Your task to perform on an android device: find photos in the google photos app Image 0: 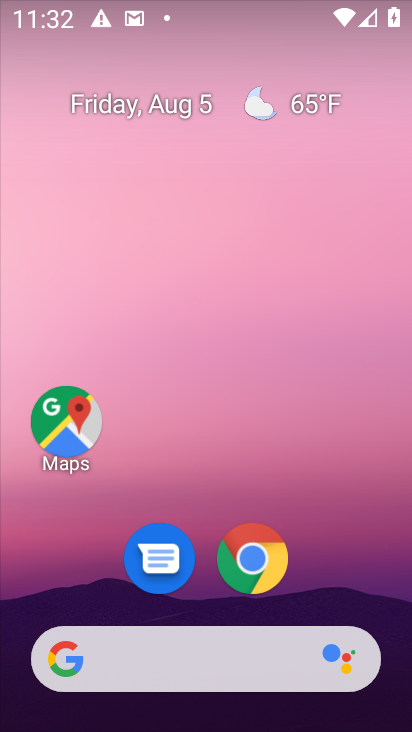
Step 0: press home button
Your task to perform on an android device: find photos in the google photos app Image 1: 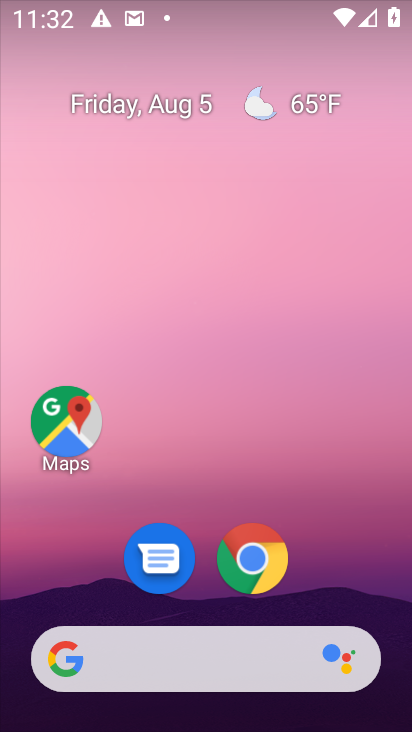
Step 1: drag from (350, 569) to (375, 234)
Your task to perform on an android device: find photos in the google photos app Image 2: 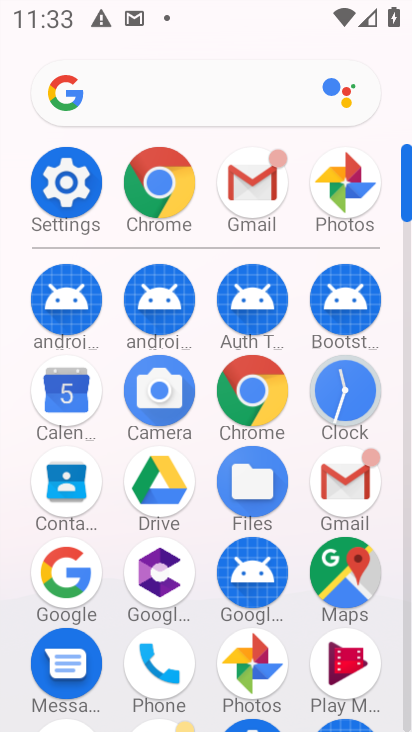
Step 2: click (355, 185)
Your task to perform on an android device: find photos in the google photos app Image 3: 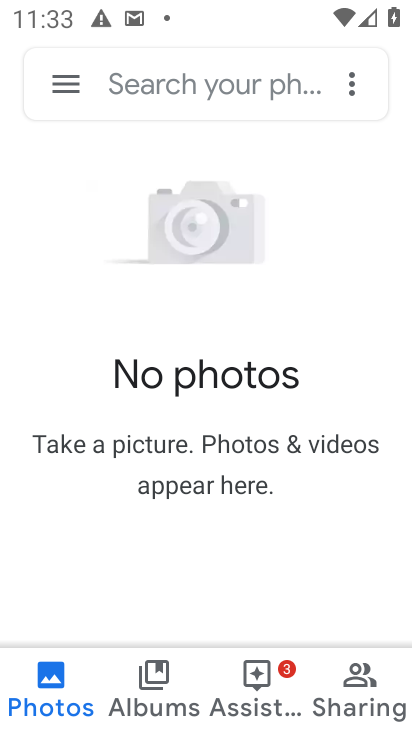
Step 3: task complete